Your task to perform on an android device: Search for vegetarian restaurants on Maps Image 0: 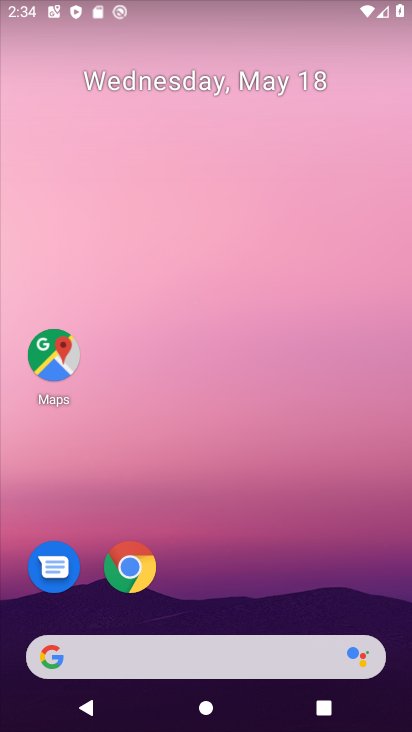
Step 0: drag from (287, 595) to (257, 200)
Your task to perform on an android device: Search for vegetarian restaurants on Maps Image 1: 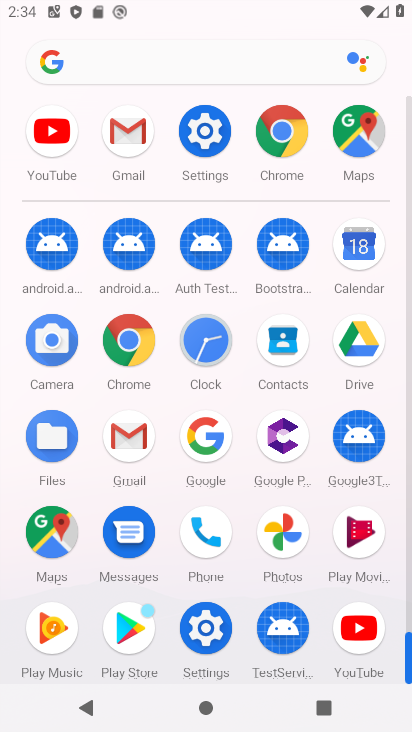
Step 1: click (291, 353)
Your task to perform on an android device: Search for vegetarian restaurants on Maps Image 2: 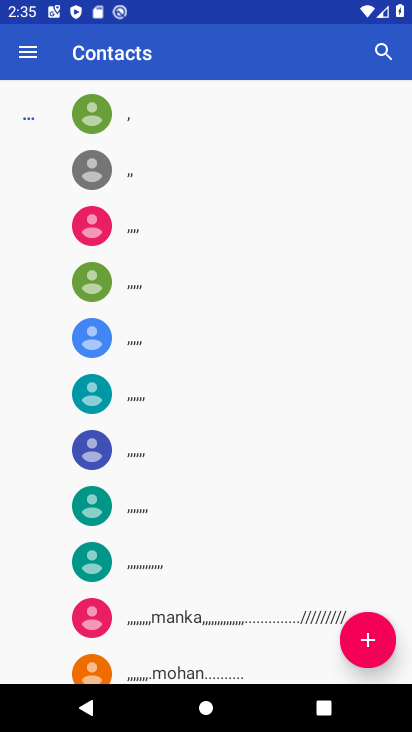
Step 2: press home button
Your task to perform on an android device: Search for vegetarian restaurants on Maps Image 3: 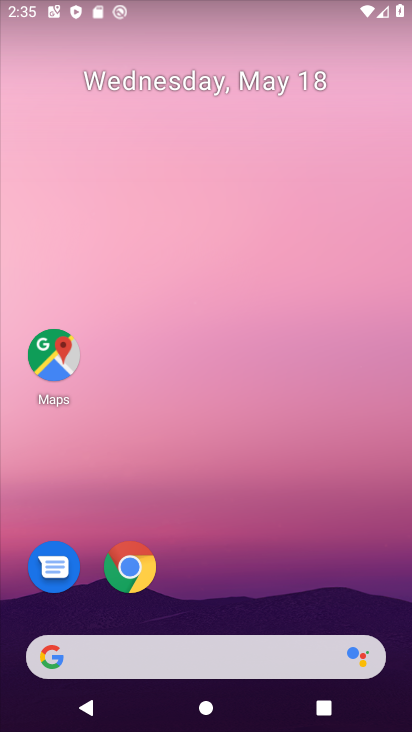
Step 3: click (44, 352)
Your task to perform on an android device: Search for vegetarian restaurants on Maps Image 4: 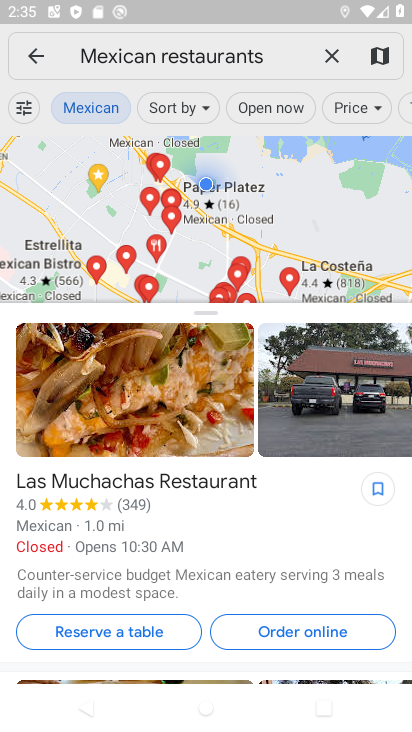
Step 4: click (199, 59)
Your task to perform on an android device: Search for vegetarian restaurants on Maps Image 5: 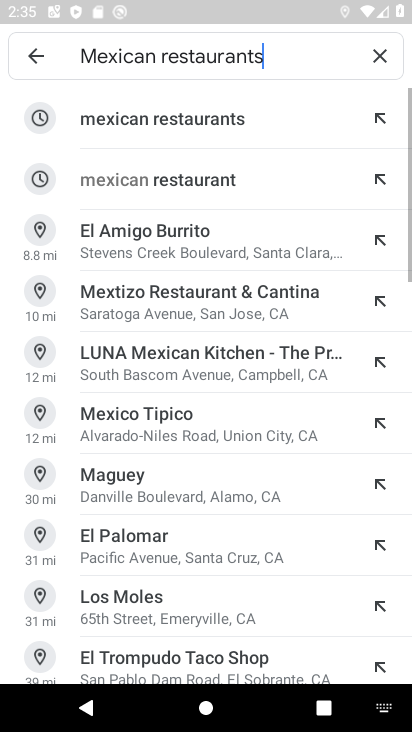
Step 5: click (383, 52)
Your task to perform on an android device: Search for vegetarian restaurants on Maps Image 6: 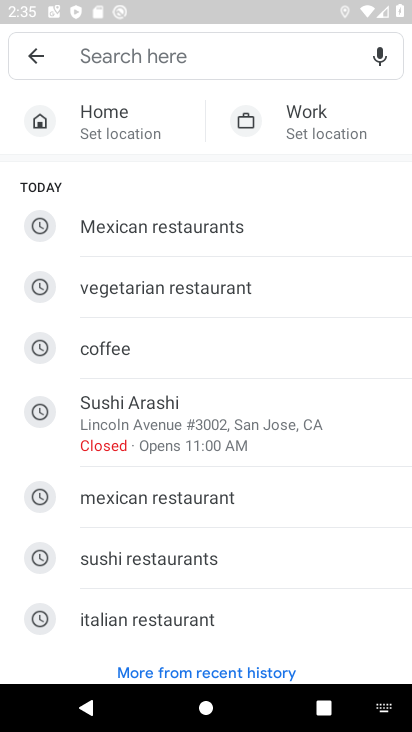
Step 6: type "vegetarian restaurants"
Your task to perform on an android device: Search for vegetarian restaurants on Maps Image 7: 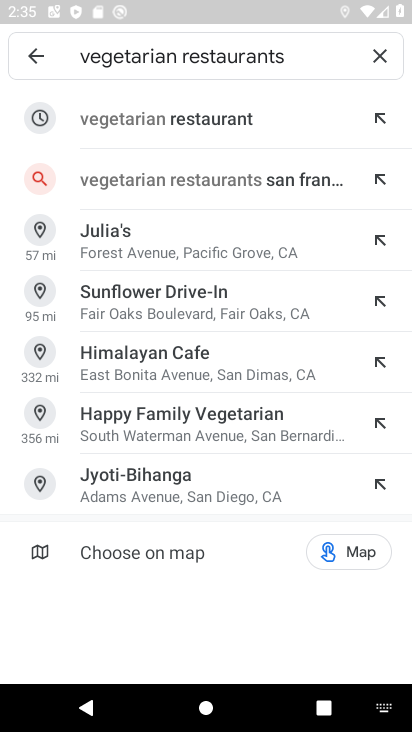
Step 7: press enter
Your task to perform on an android device: Search for vegetarian restaurants on Maps Image 8: 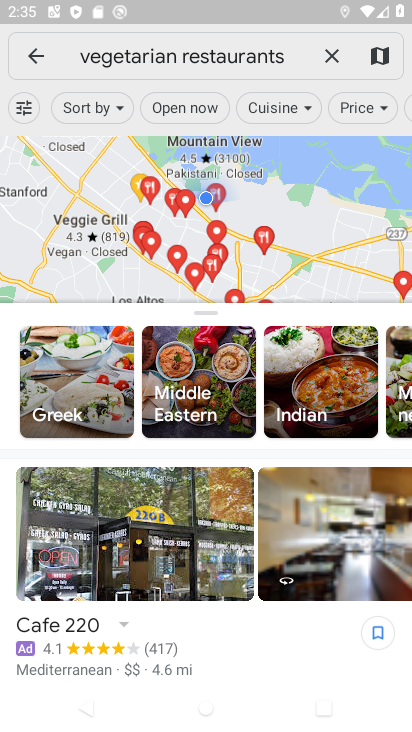
Step 8: task complete